Your task to perform on an android device: Open privacy settings Image 0: 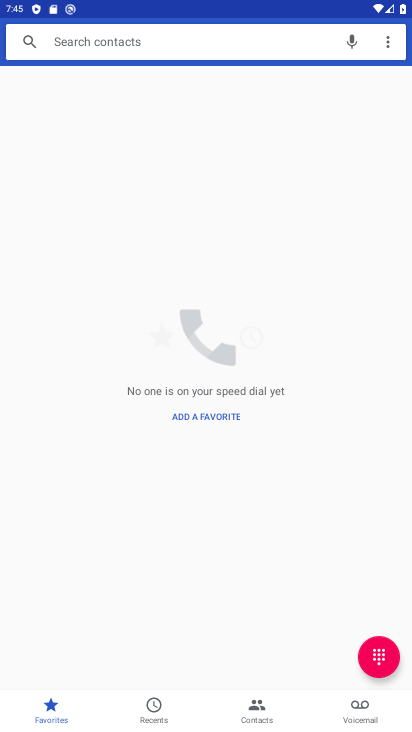
Step 0: press home button
Your task to perform on an android device: Open privacy settings Image 1: 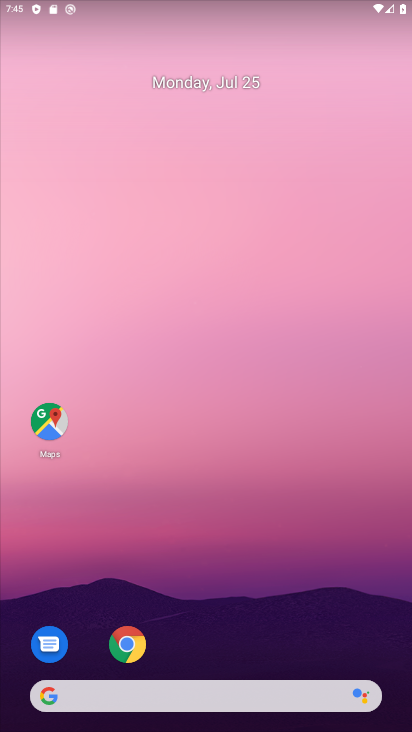
Step 1: drag from (218, 501) to (271, 5)
Your task to perform on an android device: Open privacy settings Image 2: 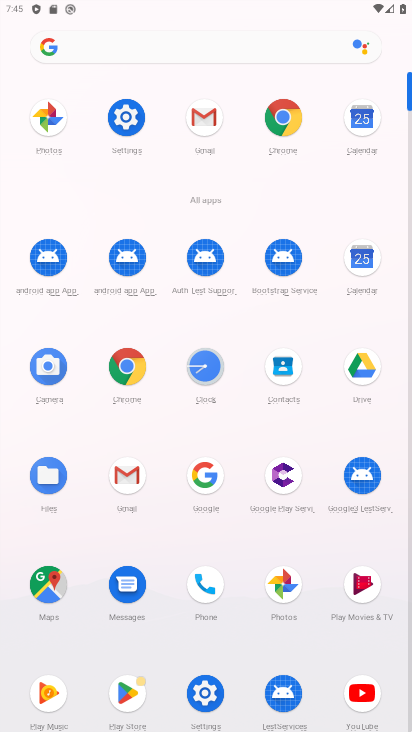
Step 2: click (125, 120)
Your task to perform on an android device: Open privacy settings Image 3: 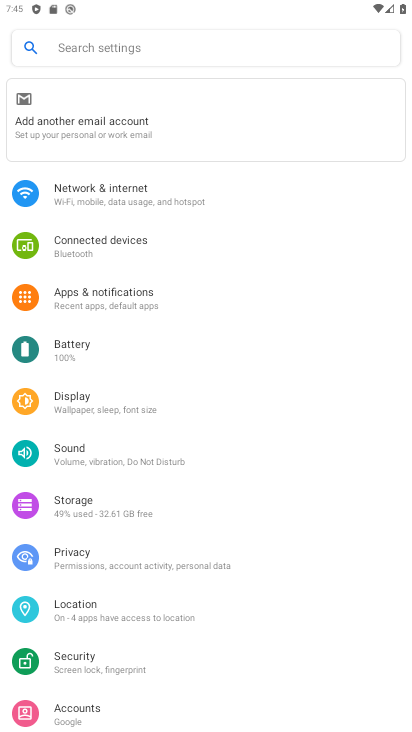
Step 3: click (57, 562)
Your task to perform on an android device: Open privacy settings Image 4: 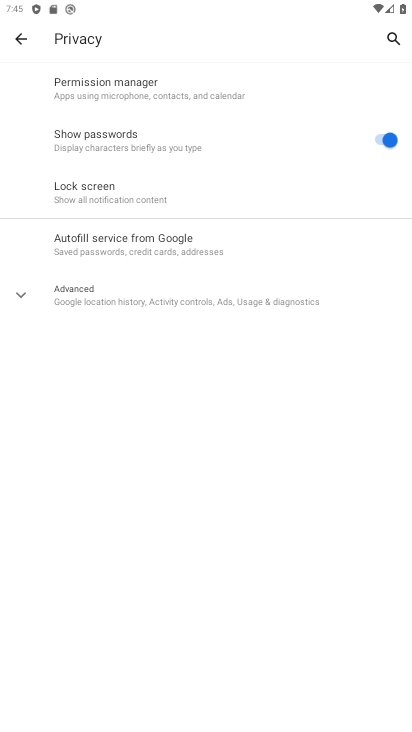
Step 4: task complete